Your task to perform on an android device: Open the stopwatch Image 0: 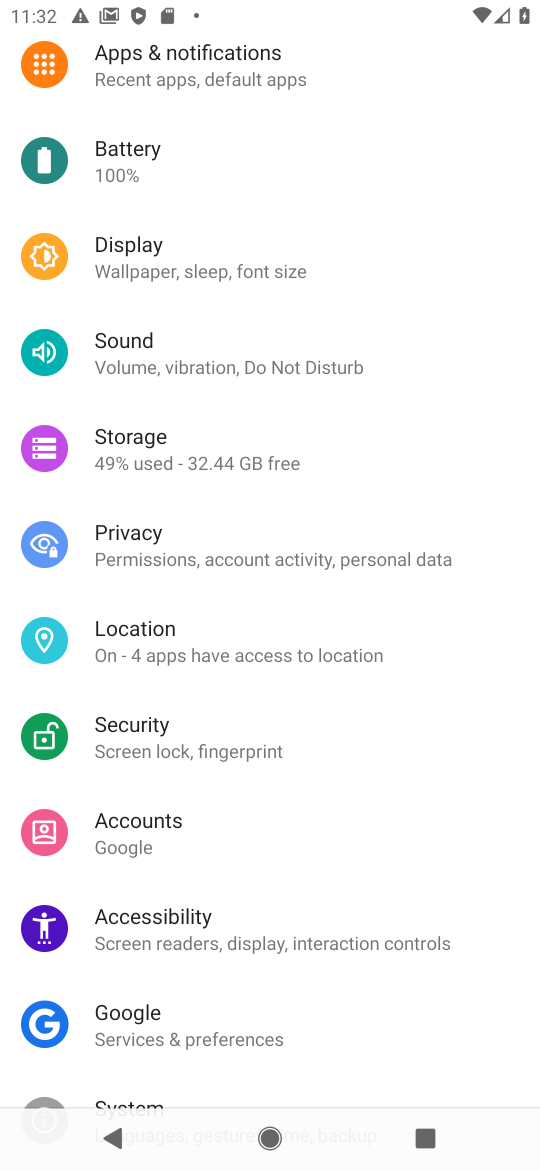
Step 0: press home button
Your task to perform on an android device: Open the stopwatch Image 1: 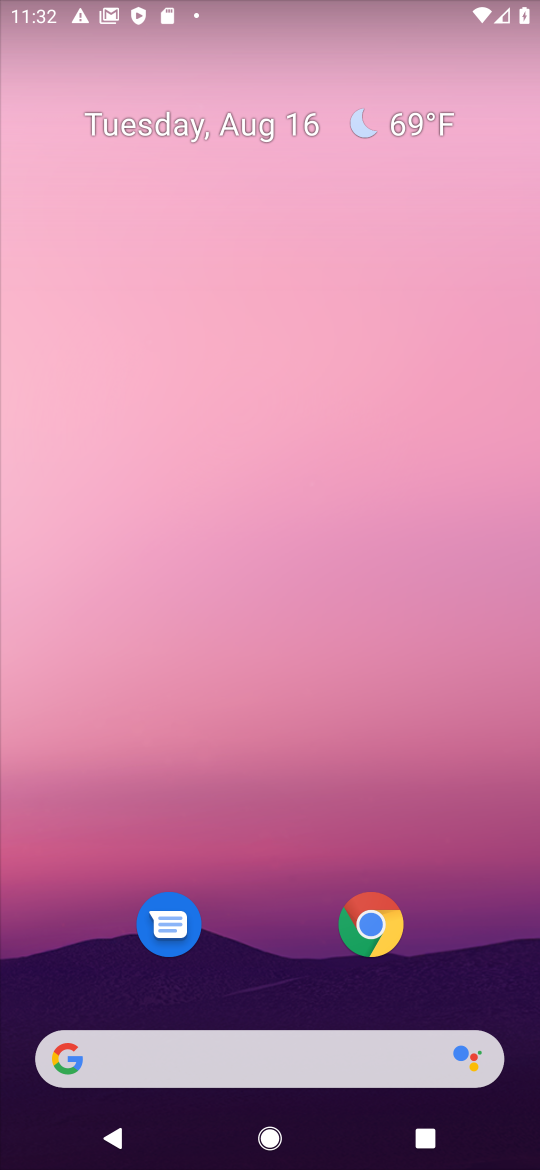
Step 1: drag from (296, 997) to (271, 136)
Your task to perform on an android device: Open the stopwatch Image 2: 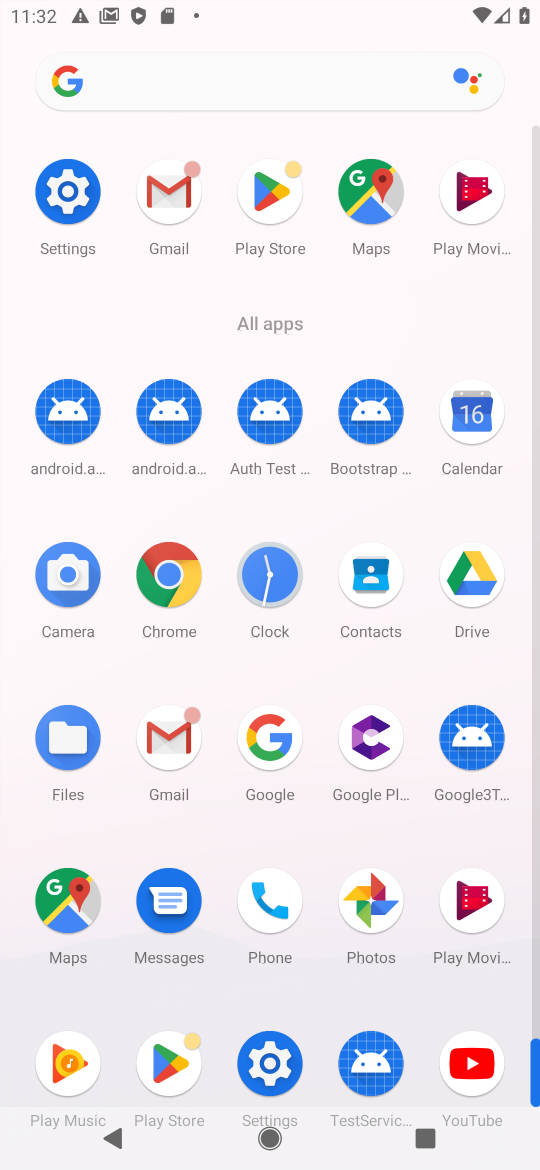
Step 2: click (275, 580)
Your task to perform on an android device: Open the stopwatch Image 3: 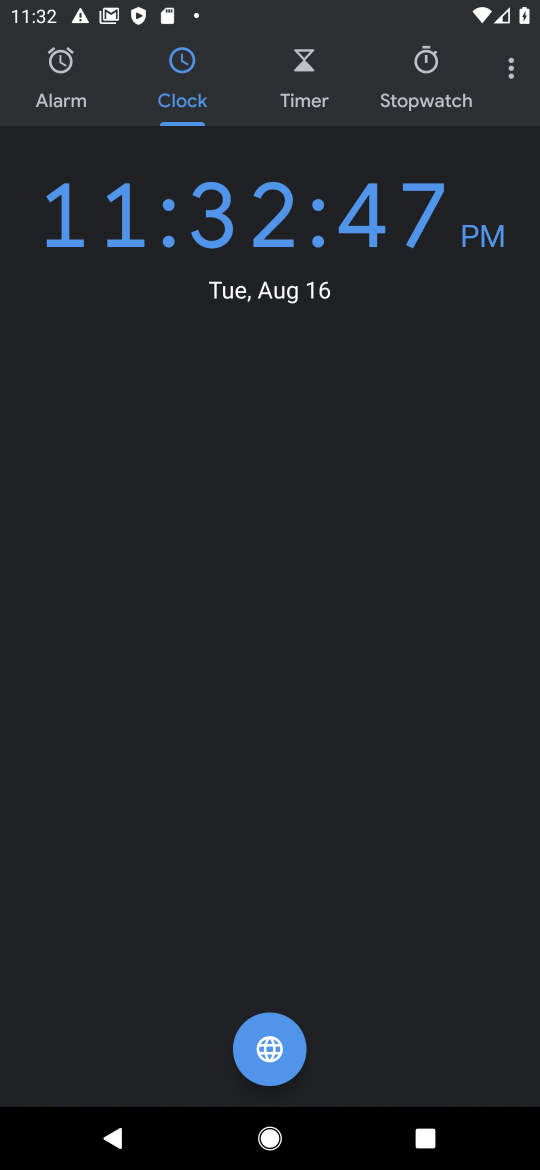
Step 3: click (432, 91)
Your task to perform on an android device: Open the stopwatch Image 4: 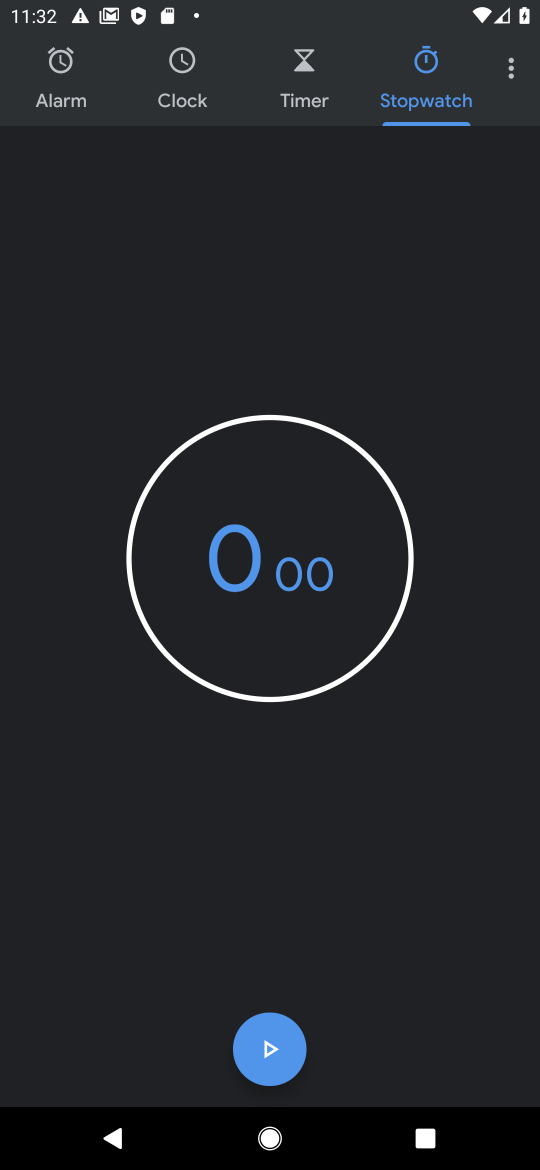
Step 4: task complete